Your task to perform on an android device: turn pop-ups off in chrome Image 0: 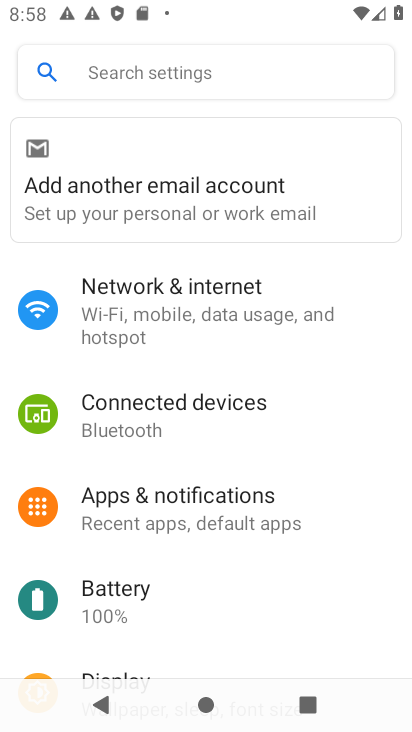
Step 0: press home button
Your task to perform on an android device: turn pop-ups off in chrome Image 1: 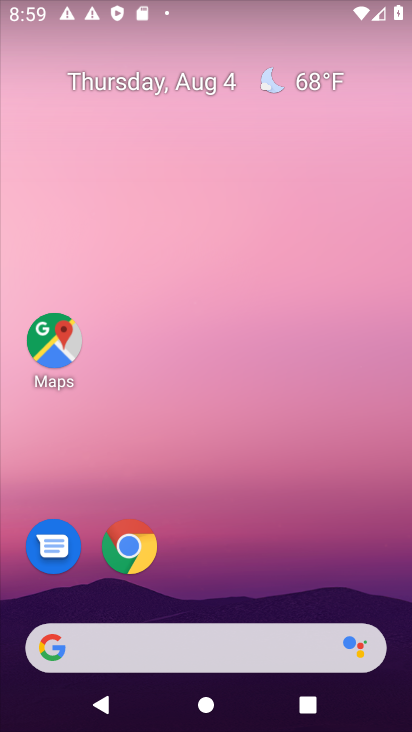
Step 1: click (132, 546)
Your task to perform on an android device: turn pop-ups off in chrome Image 2: 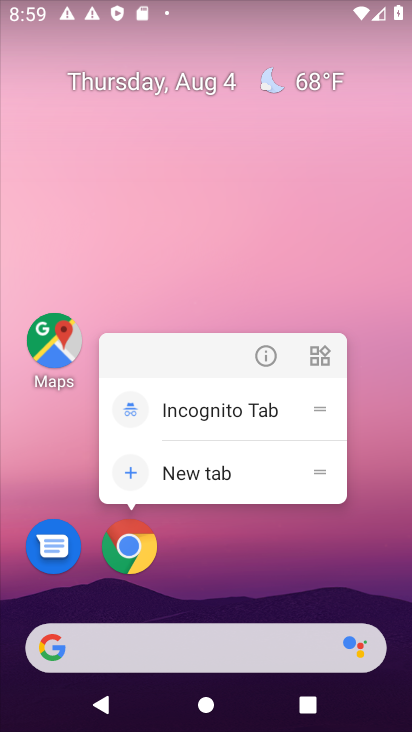
Step 2: click (135, 557)
Your task to perform on an android device: turn pop-ups off in chrome Image 3: 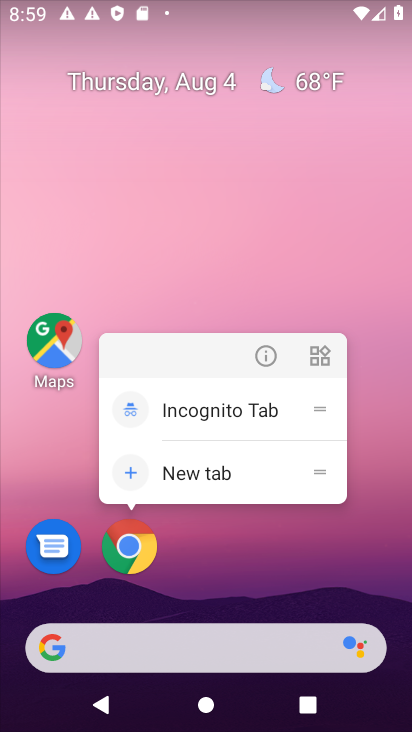
Step 3: click (331, 565)
Your task to perform on an android device: turn pop-ups off in chrome Image 4: 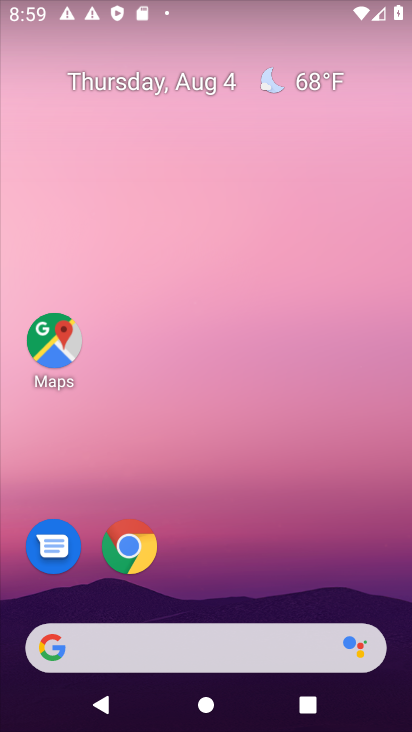
Step 4: drag from (303, 588) to (286, 138)
Your task to perform on an android device: turn pop-ups off in chrome Image 5: 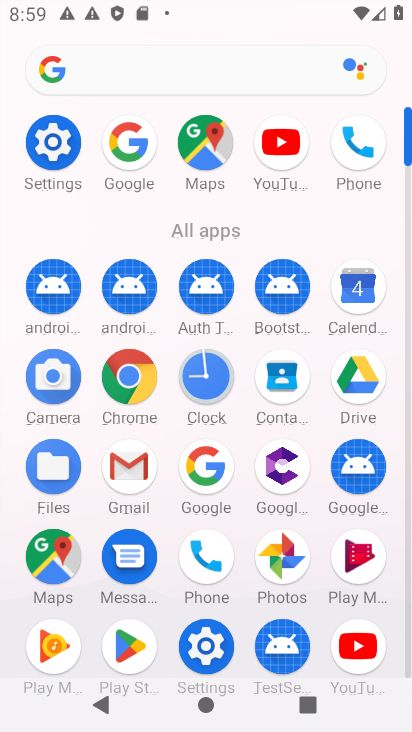
Step 5: click (134, 381)
Your task to perform on an android device: turn pop-ups off in chrome Image 6: 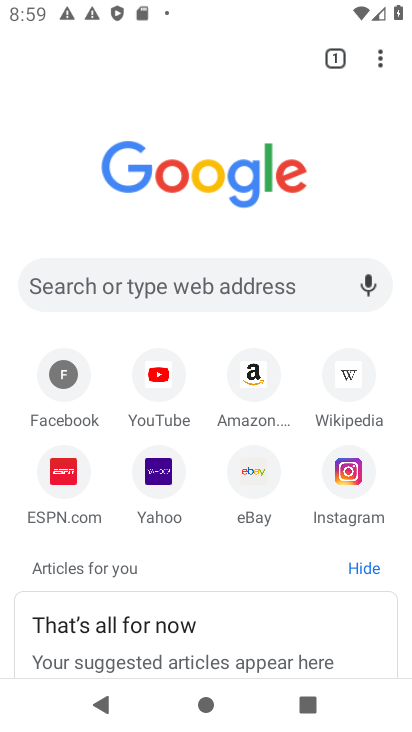
Step 6: drag from (380, 56) to (189, 494)
Your task to perform on an android device: turn pop-ups off in chrome Image 7: 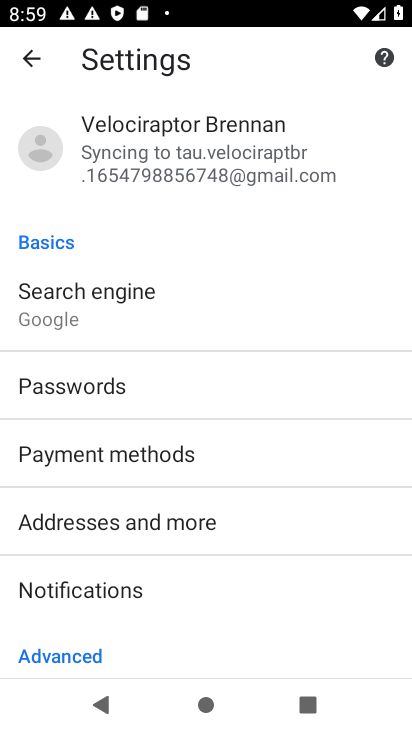
Step 7: drag from (272, 596) to (288, 128)
Your task to perform on an android device: turn pop-ups off in chrome Image 8: 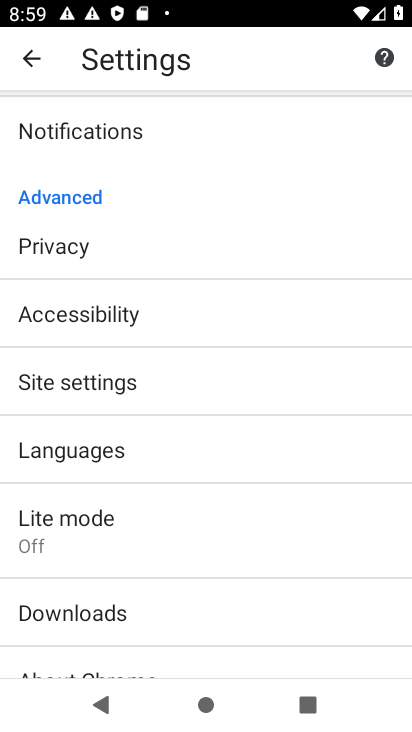
Step 8: click (83, 386)
Your task to perform on an android device: turn pop-ups off in chrome Image 9: 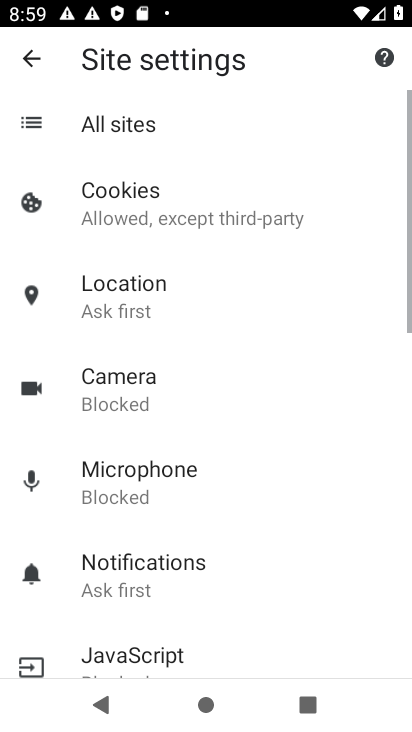
Step 9: drag from (357, 558) to (331, 270)
Your task to perform on an android device: turn pop-ups off in chrome Image 10: 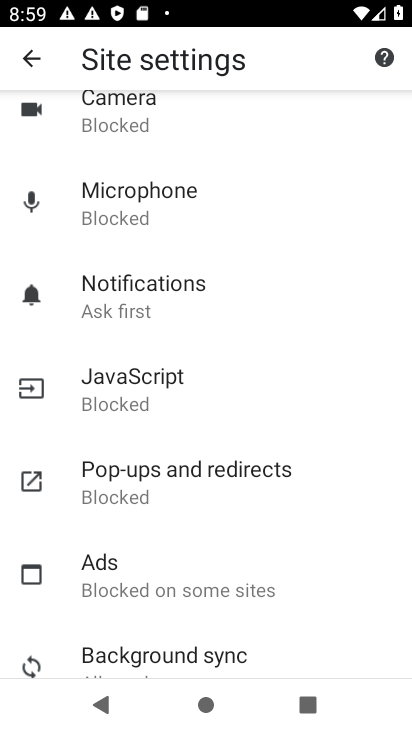
Step 10: click (130, 484)
Your task to perform on an android device: turn pop-ups off in chrome Image 11: 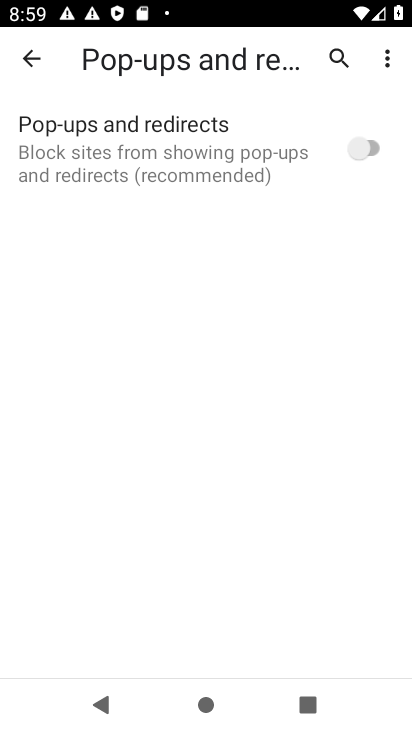
Step 11: task complete